Your task to perform on an android device: open chrome privacy settings Image 0: 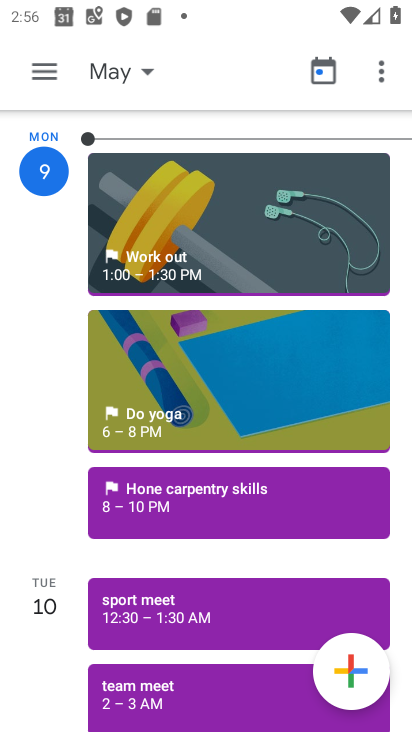
Step 0: press home button
Your task to perform on an android device: open chrome privacy settings Image 1: 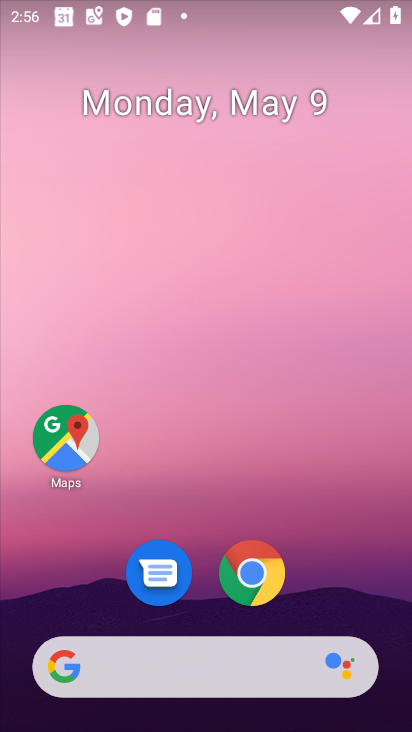
Step 1: drag from (209, 644) to (180, 234)
Your task to perform on an android device: open chrome privacy settings Image 2: 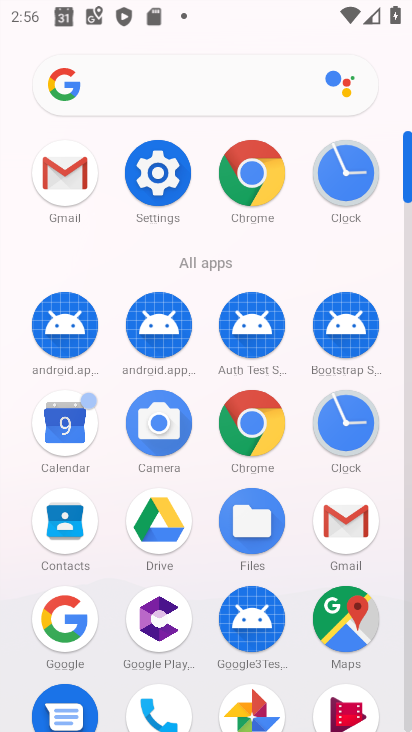
Step 2: drag from (191, 344) to (191, 245)
Your task to perform on an android device: open chrome privacy settings Image 3: 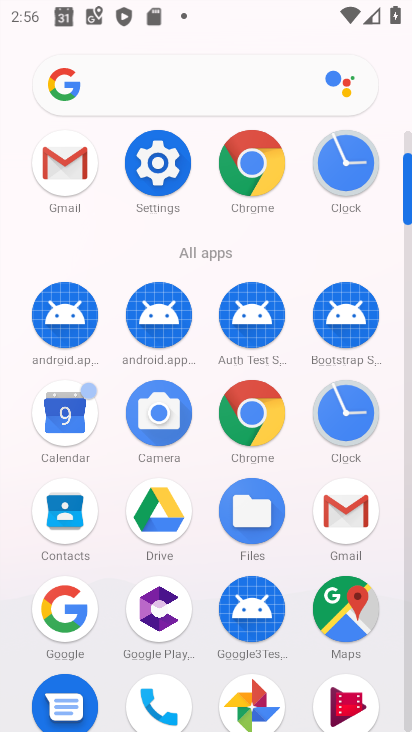
Step 3: click (251, 149)
Your task to perform on an android device: open chrome privacy settings Image 4: 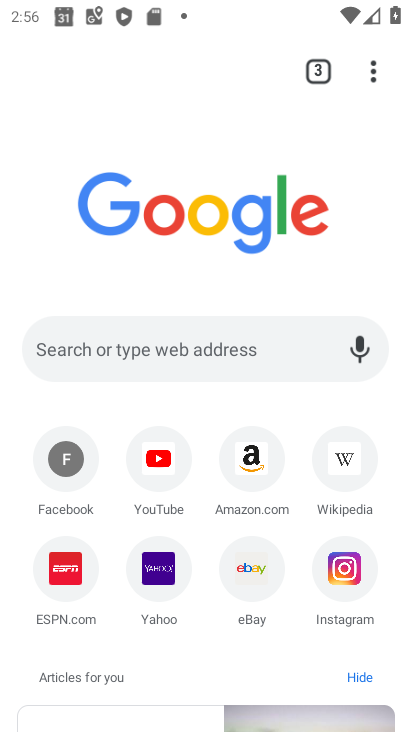
Step 4: click (377, 71)
Your task to perform on an android device: open chrome privacy settings Image 5: 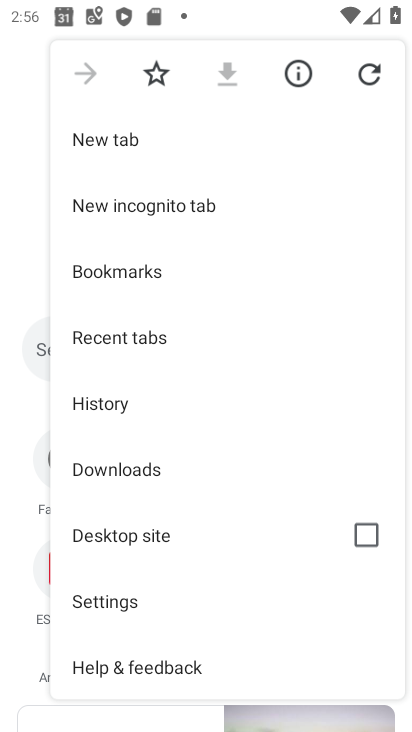
Step 5: drag from (132, 660) to (138, 324)
Your task to perform on an android device: open chrome privacy settings Image 6: 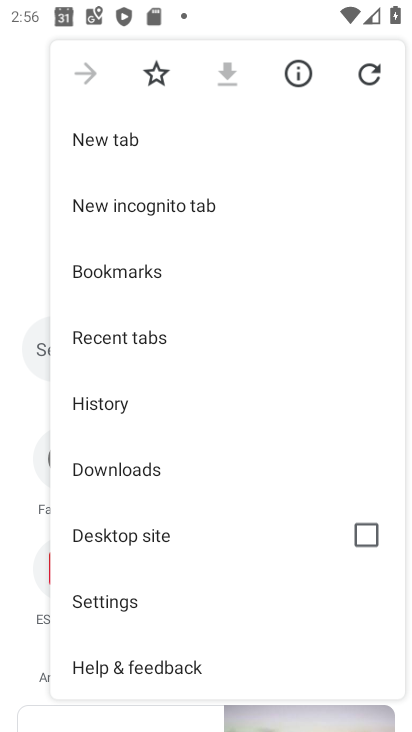
Step 6: click (114, 595)
Your task to perform on an android device: open chrome privacy settings Image 7: 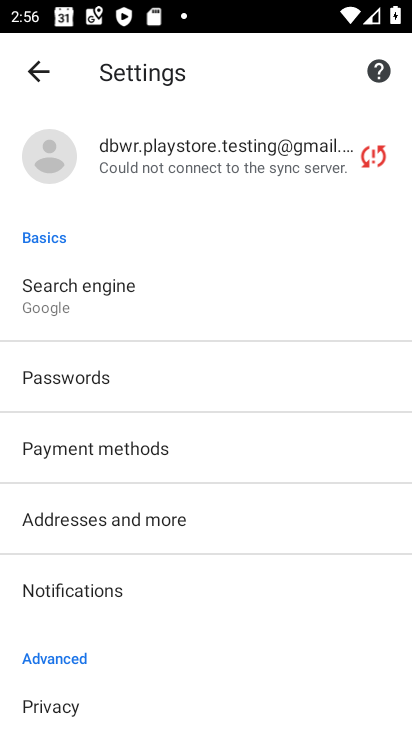
Step 7: click (68, 712)
Your task to perform on an android device: open chrome privacy settings Image 8: 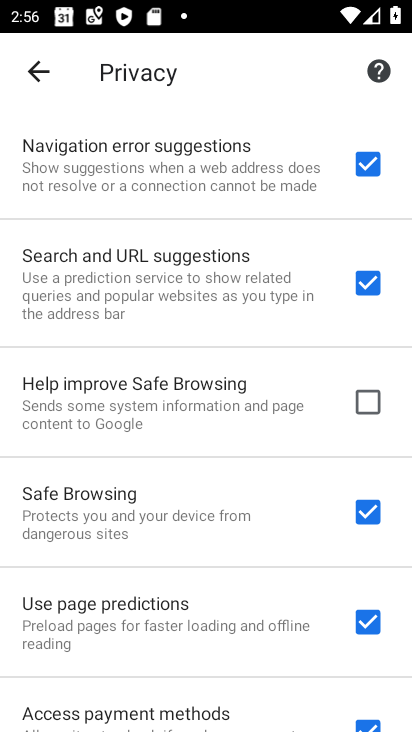
Step 8: drag from (140, 697) to (168, 245)
Your task to perform on an android device: open chrome privacy settings Image 9: 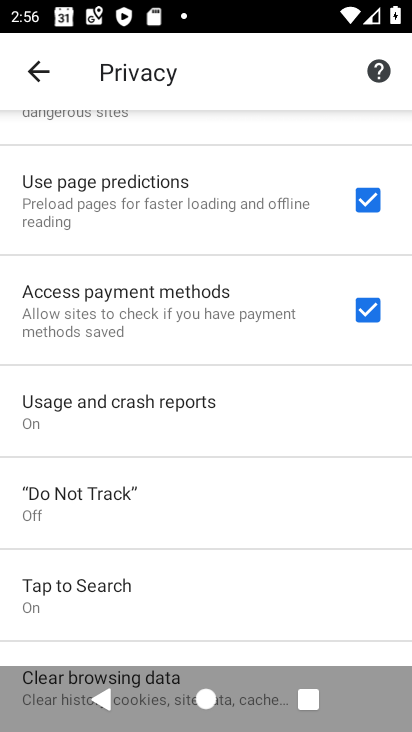
Step 9: drag from (176, 615) to (171, 224)
Your task to perform on an android device: open chrome privacy settings Image 10: 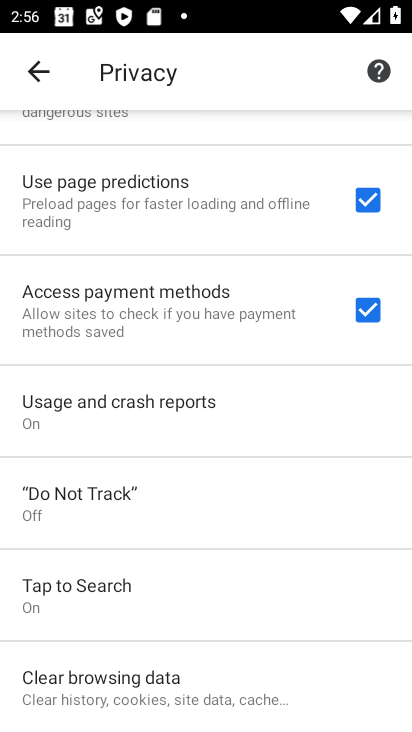
Step 10: click (157, 685)
Your task to perform on an android device: open chrome privacy settings Image 11: 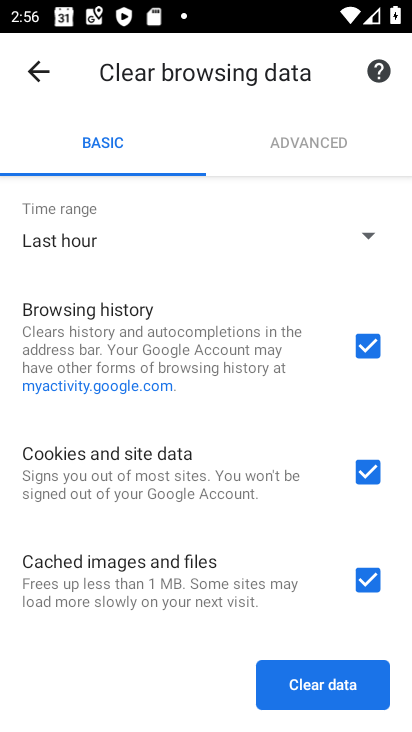
Step 11: task complete